Your task to perform on an android device: Search for the best lawnmowers on Lowes.com Image 0: 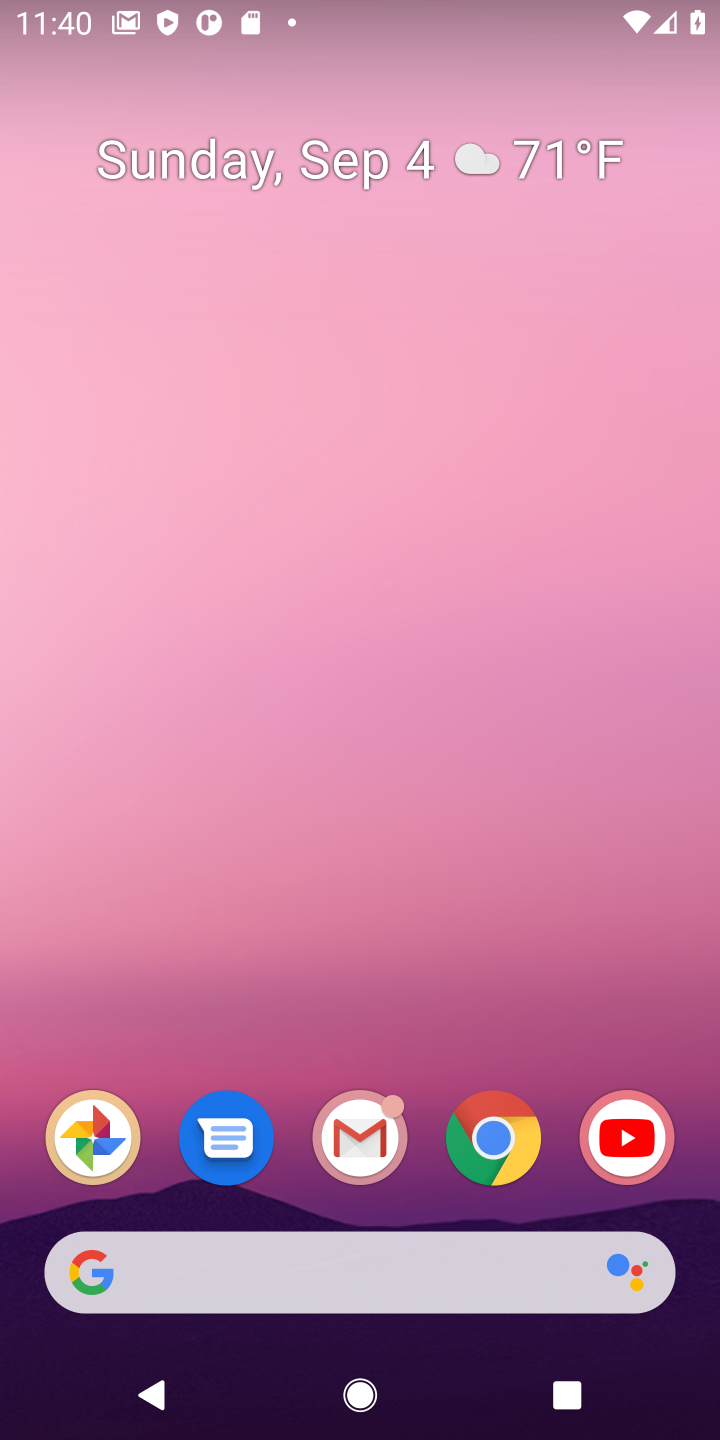
Step 0: click (480, 1142)
Your task to perform on an android device: Search for the best lawnmowers on Lowes.com Image 1: 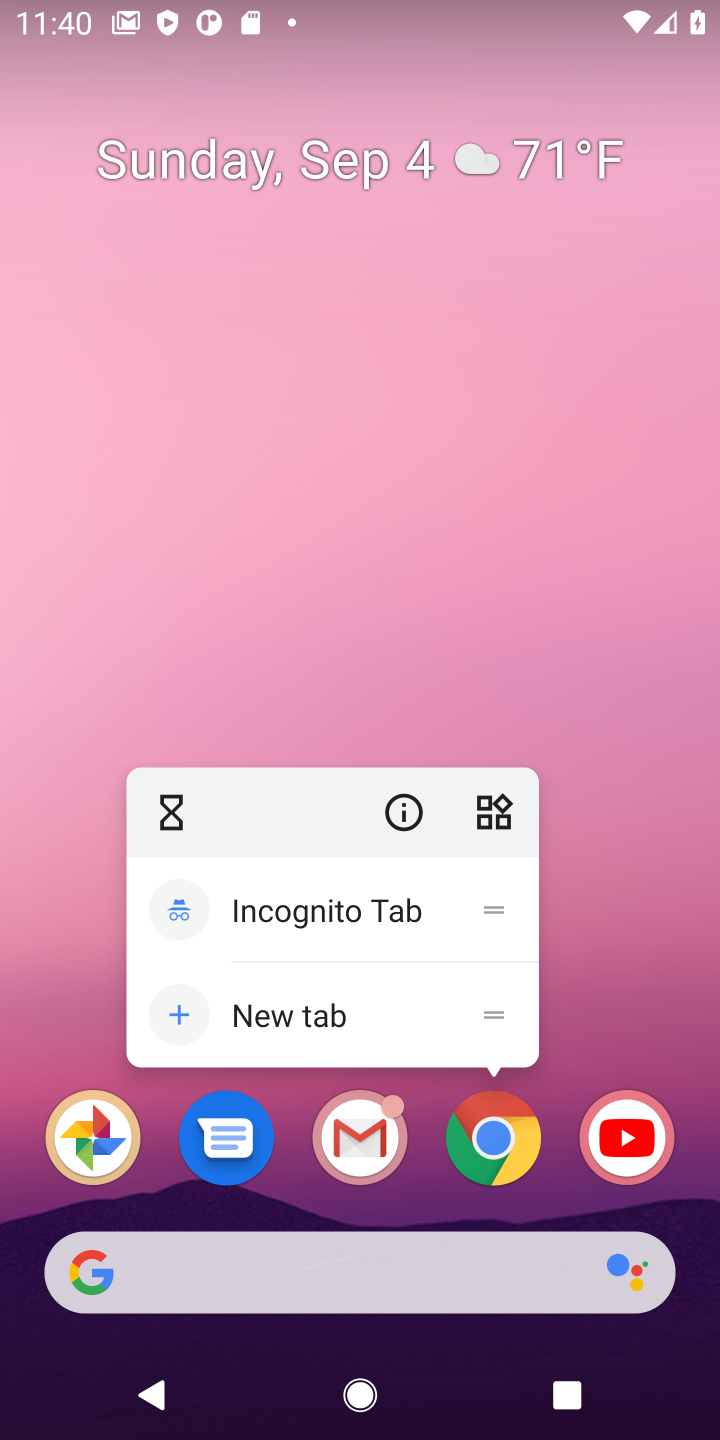
Step 1: click (519, 1142)
Your task to perform on an android device: Search for the best lawnmowers on Lowes.com Image 2: 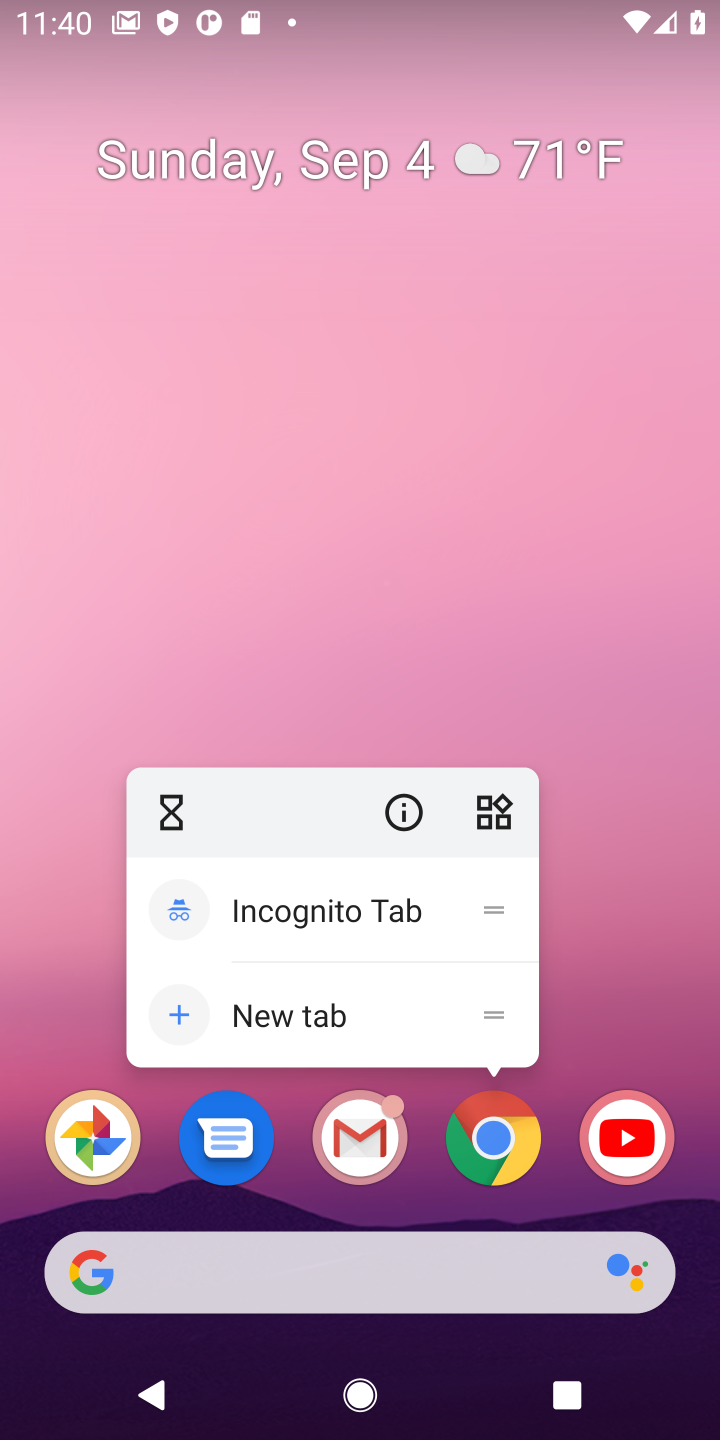
Step 2: click (488, 1144)
Your task to perform on an android device: Search for the best lawnmowers on Lowes.com Image 3: 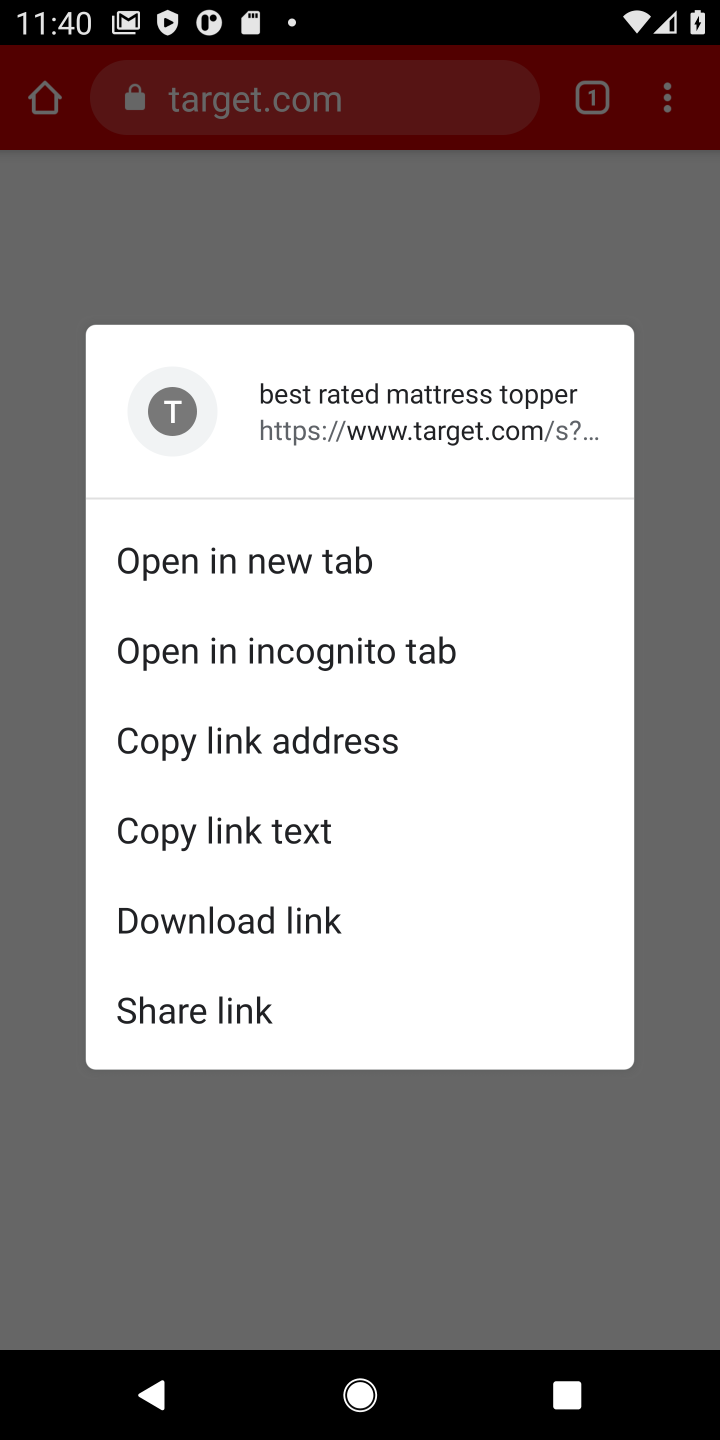
Step 3: press back button
Your task to perform on an android device: Search for the best lawnmowers on Lowes.com Image 4: 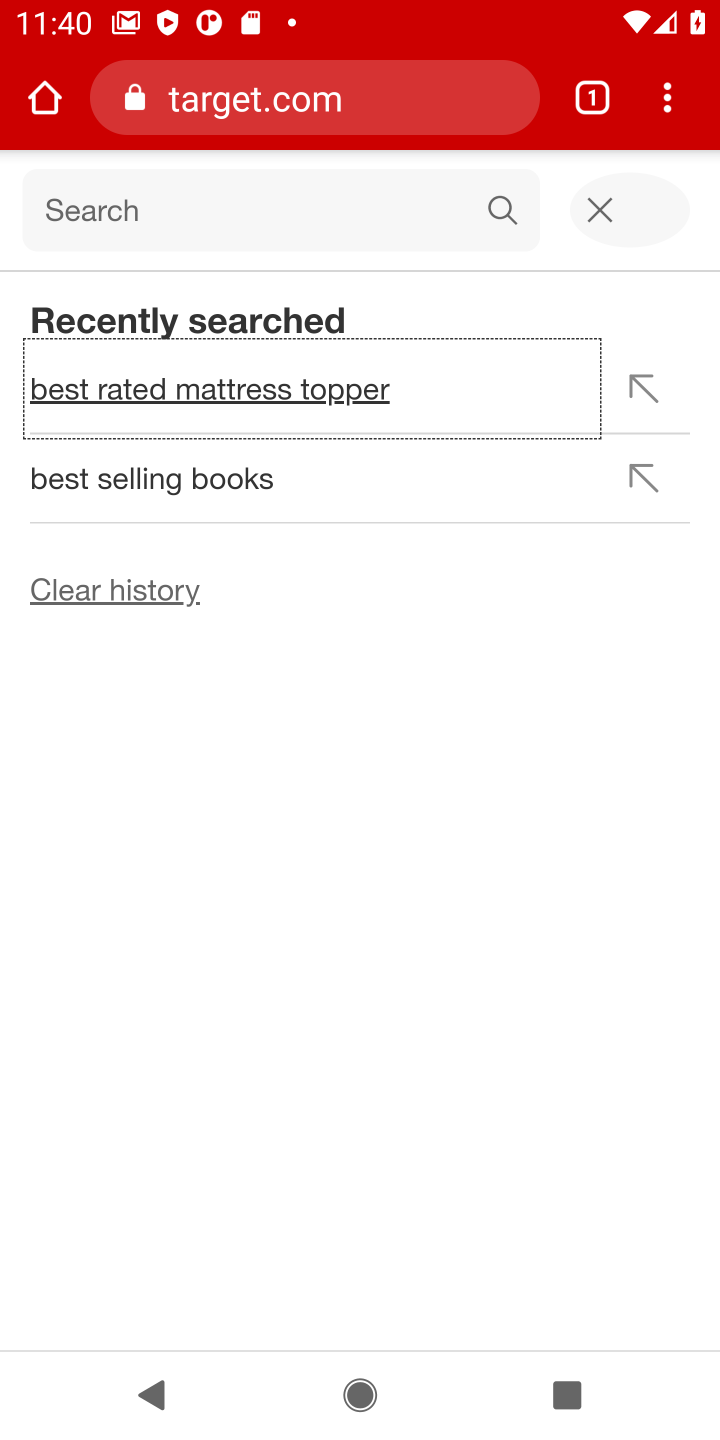
Step 4: click (407, 122)
Your task to perform on an android device: Search for the best lawnmowers on Lowes.com Image 5: 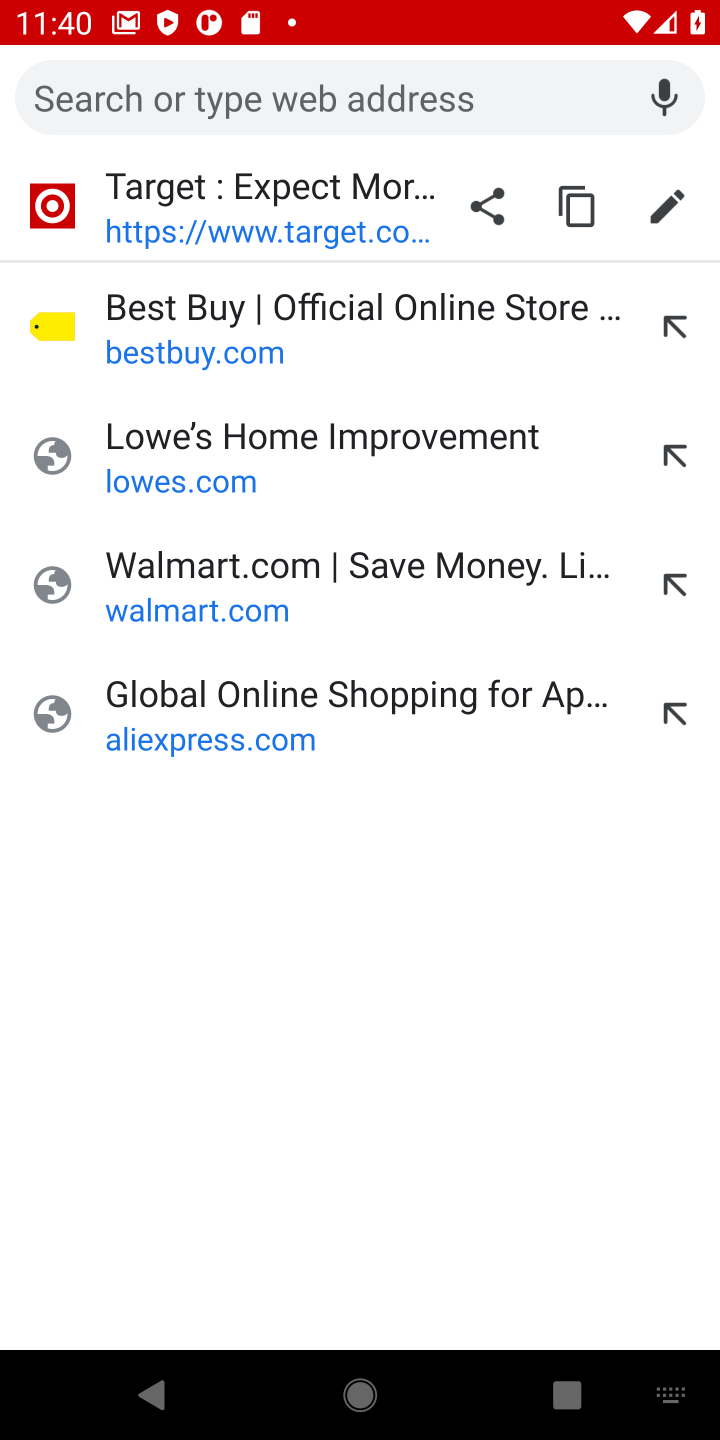
Step 5: type "lowes.com"
Your task to perform on an android device: Search for the best lawnmowers on Lowes.com Image 6: 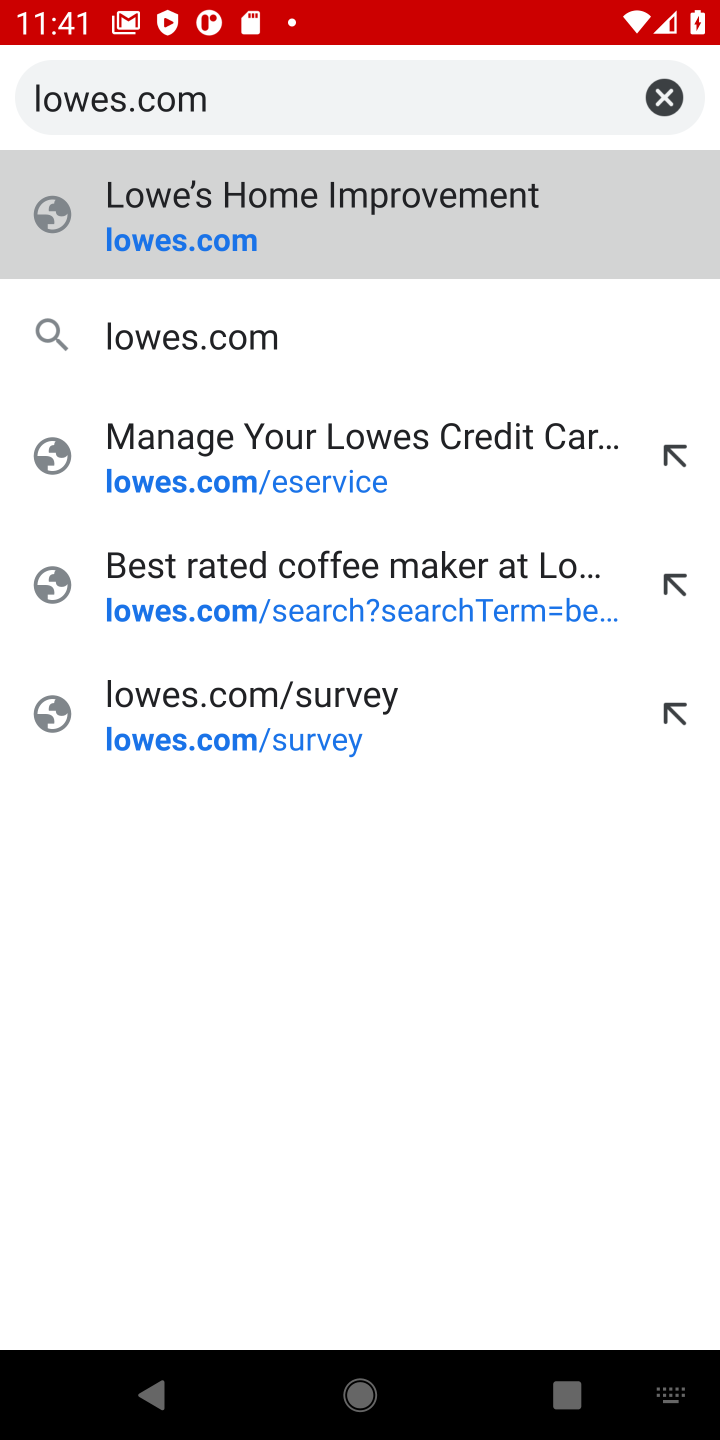
Step 6: click (571, 205)
Your task to perform on an android device: Search for the best lawnmowers on Lowes.com Image 7: 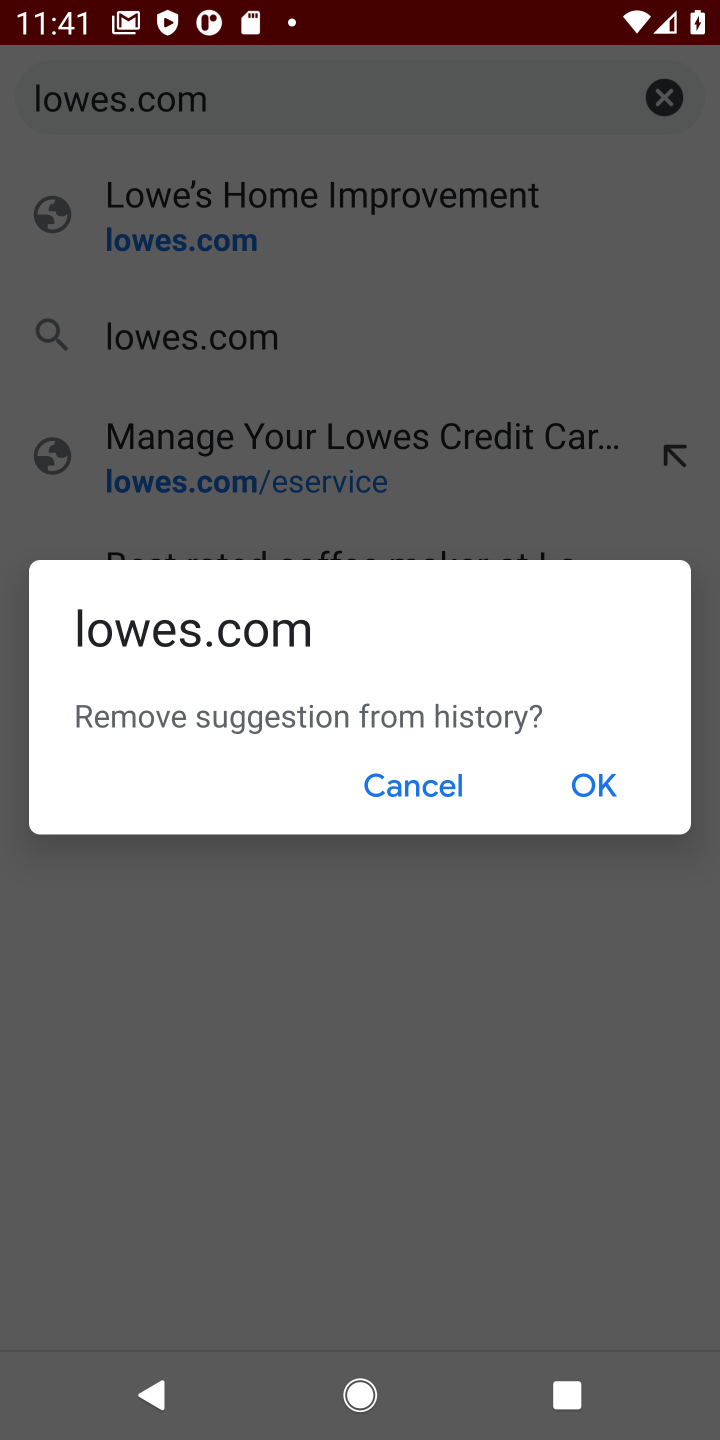
Step 7: click (420, 800)
Your task to perform on an android device: Search for the best lawnmowers on Lowes.com Image 8: 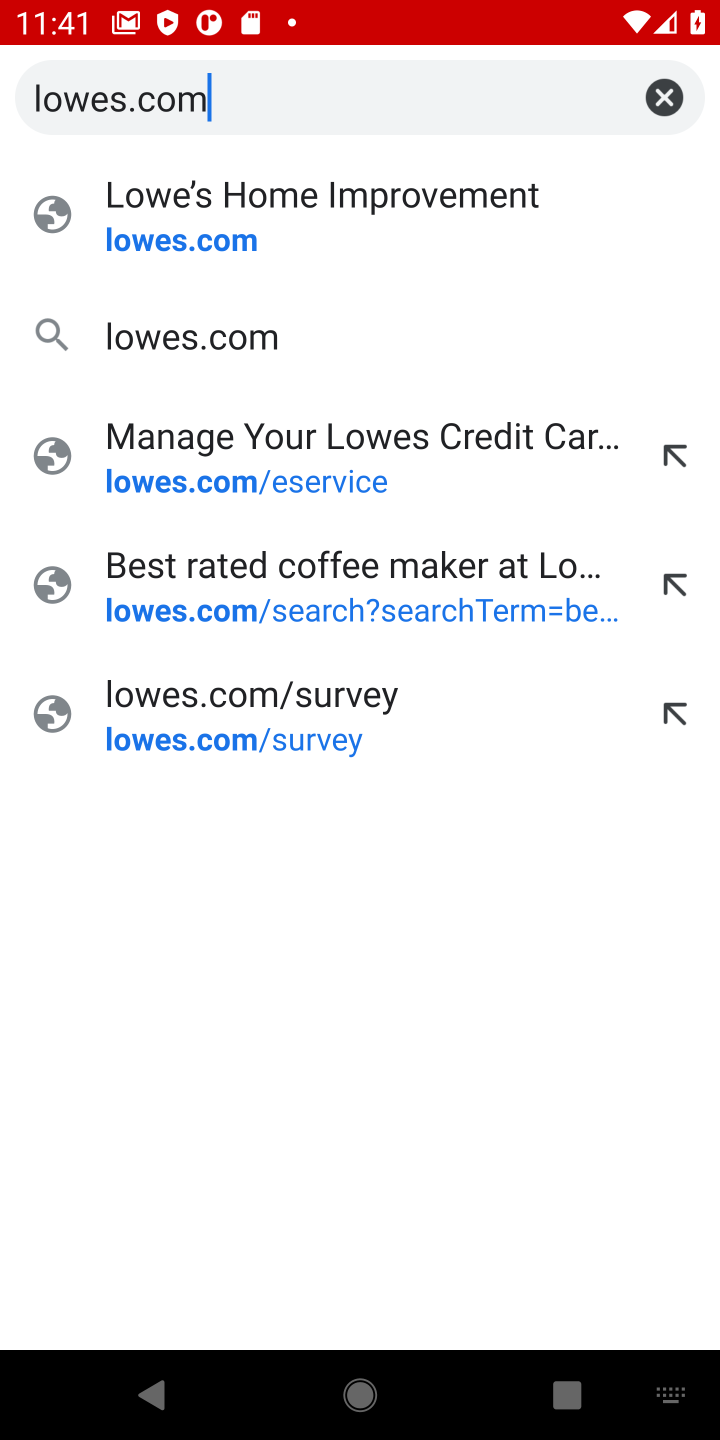
Step 8: click (275, 219)
Your task to perform on an android device: Search for the best lawnmowers on Lowes.com Image 9: 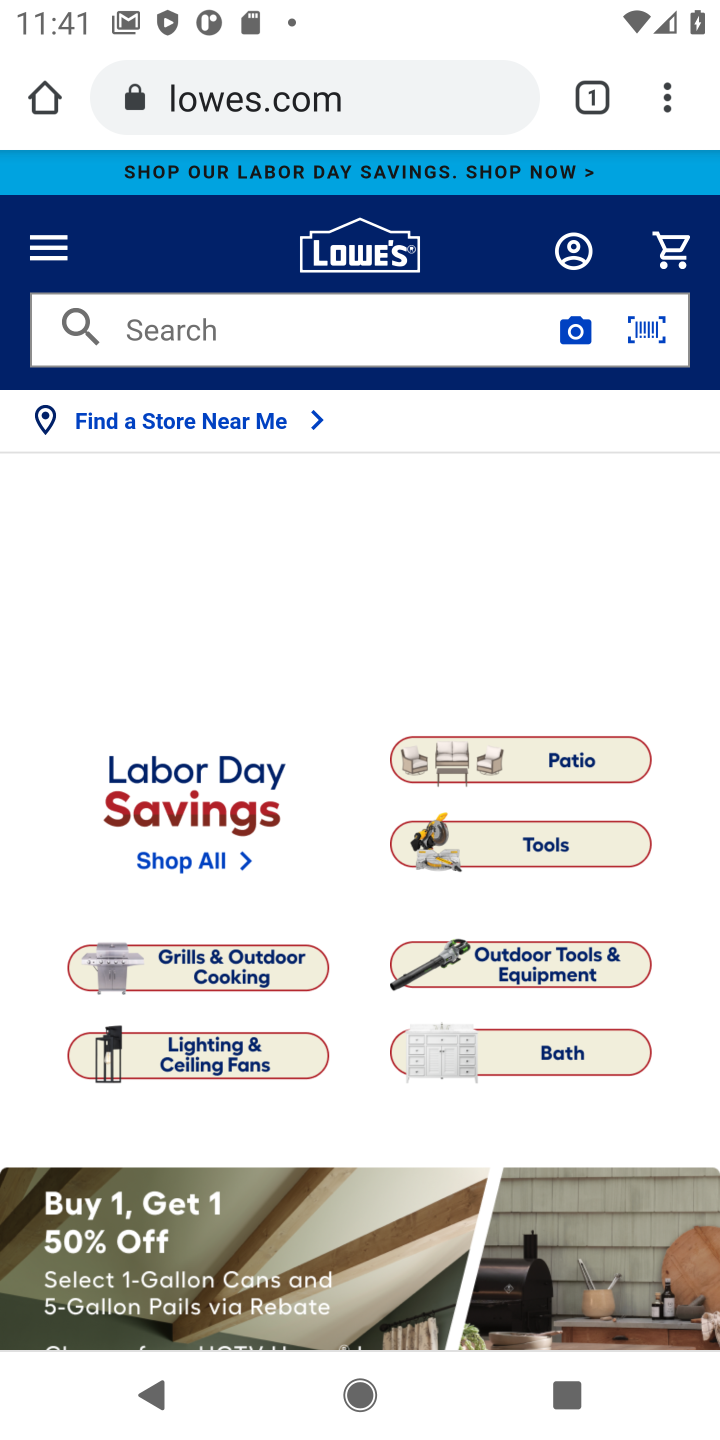
Step 9: click (266, 317)
Your task to perform on an android device: Search for the best lawnmowers on Lowes.com Image 10: 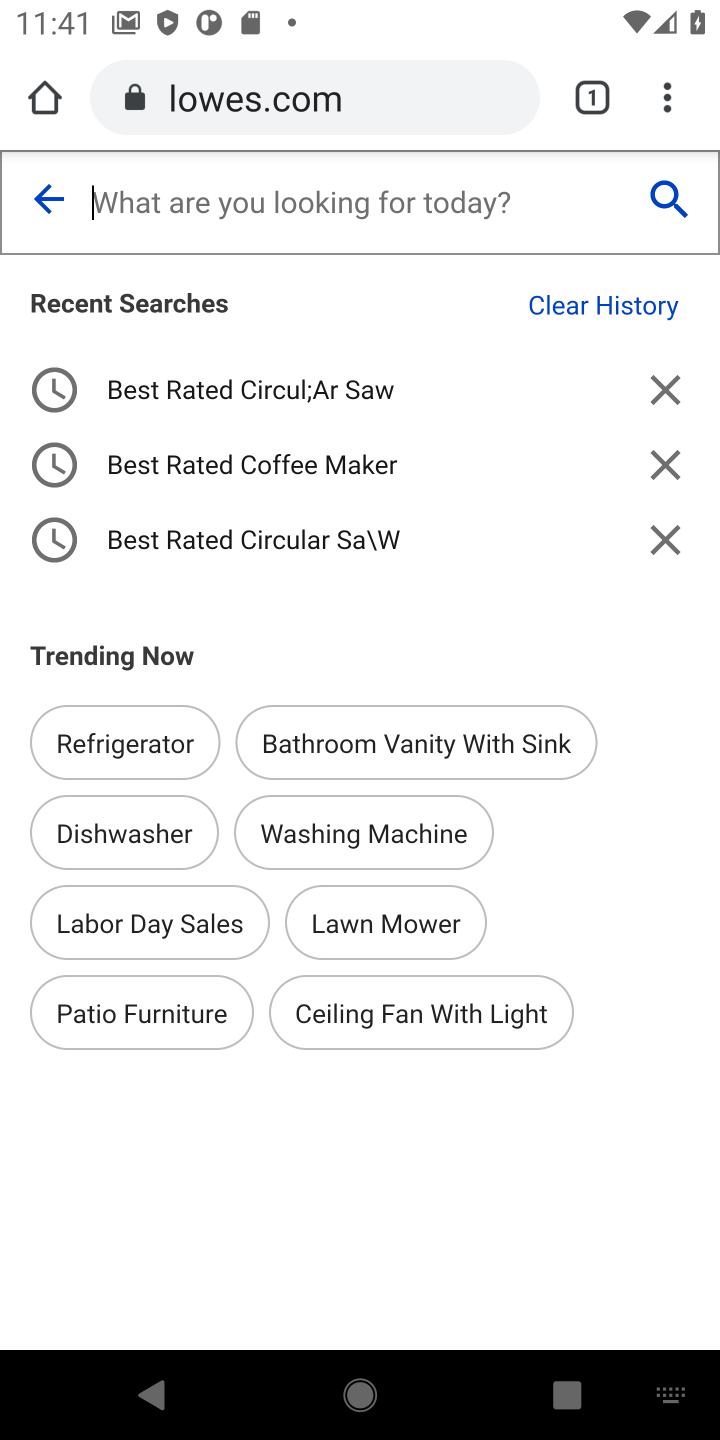
Step 10: type "best lawnmowers"
Your task to perform on an android device: Search for the best lawnmowers on Lowes.com Image 11: 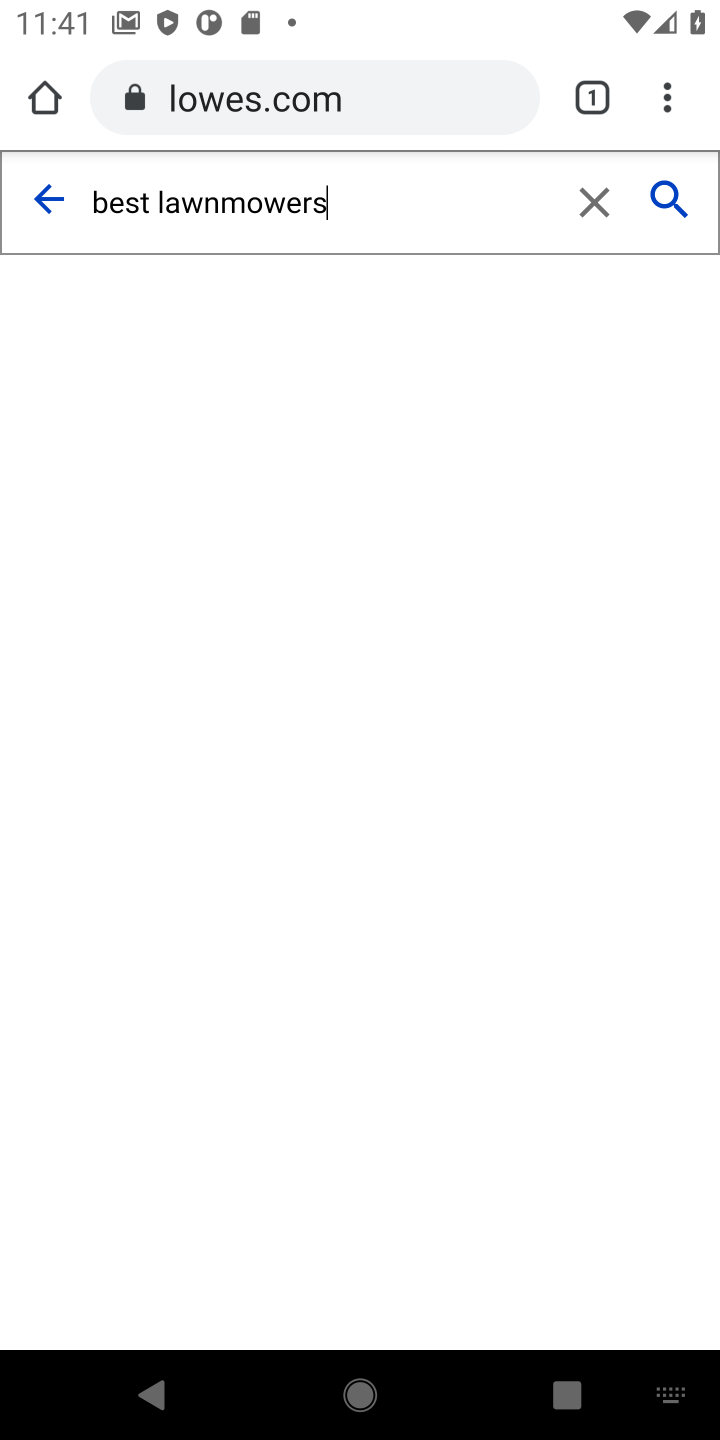
Step 11: press enter
Your task to perform on an android device: Search for the best lawnmowers on Lowes.com Image 12: 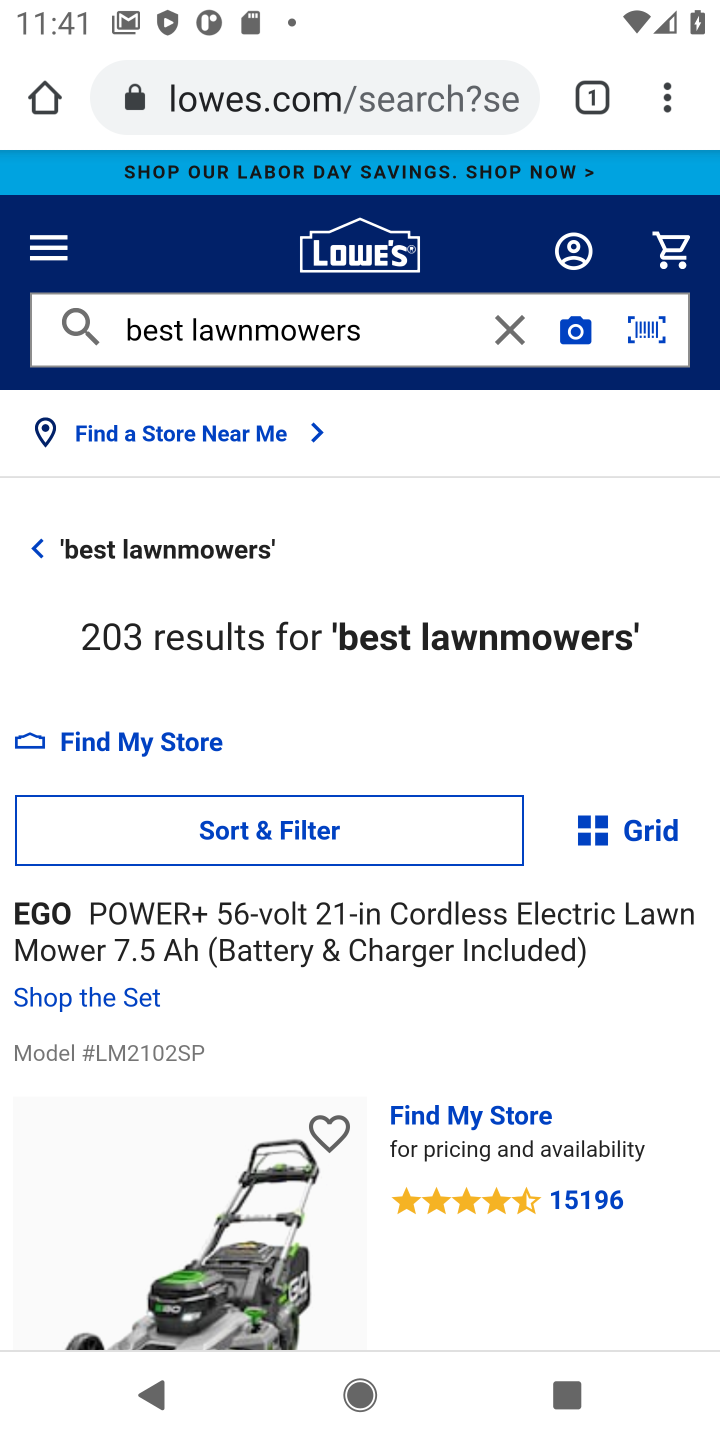
Step 12: task complete